Your task to perform on an android device: What's on the menu at Red Lobster? Image 0: 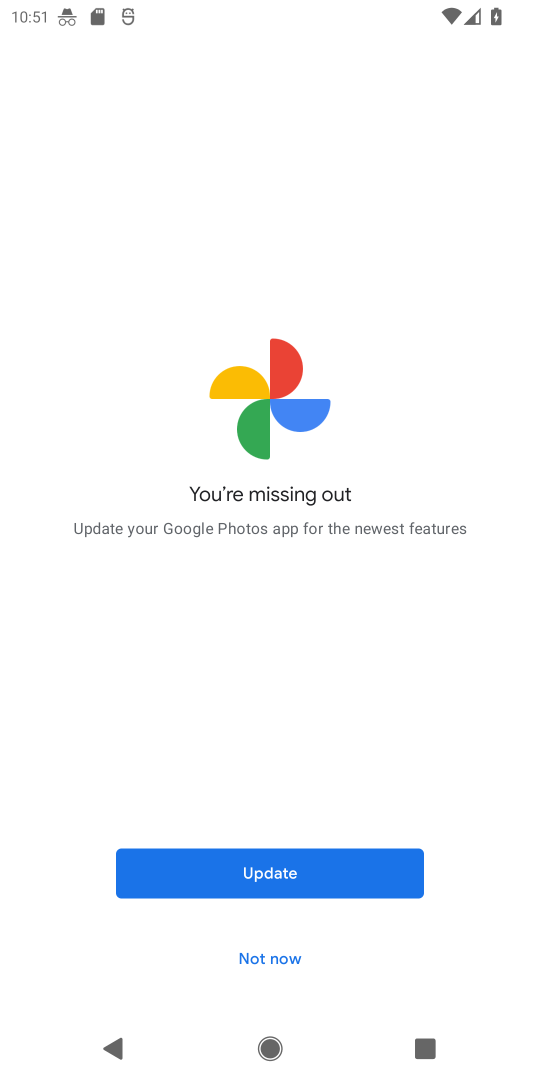
Step 0: press home button
Your task to perform on an android device: What's on the menu at Red Lobster? Image 1: 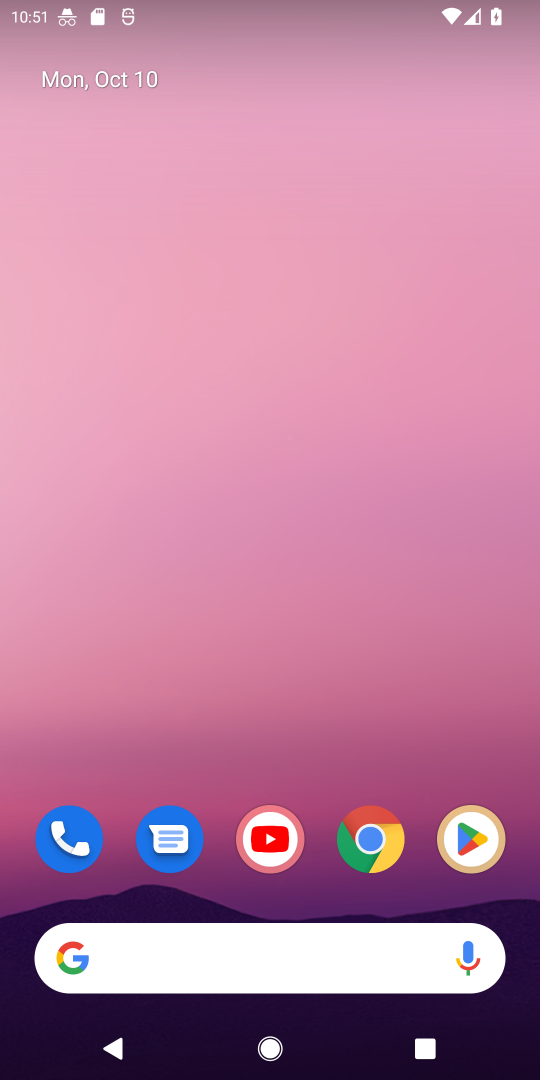
Step 1: drag from (328, 890) to (225, 81)
Your task to perform on an android device: What's on the menu at Red Lobster? Image 2: 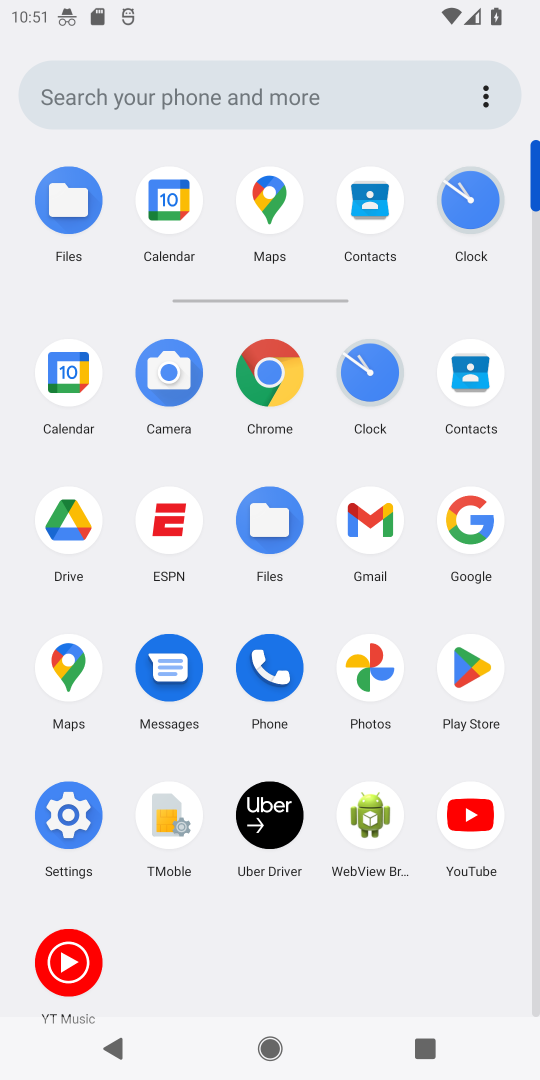
Step 2: click (277, 366)
Your task to perform on an android device: What's on the menu at Red Lobster? Image 3: 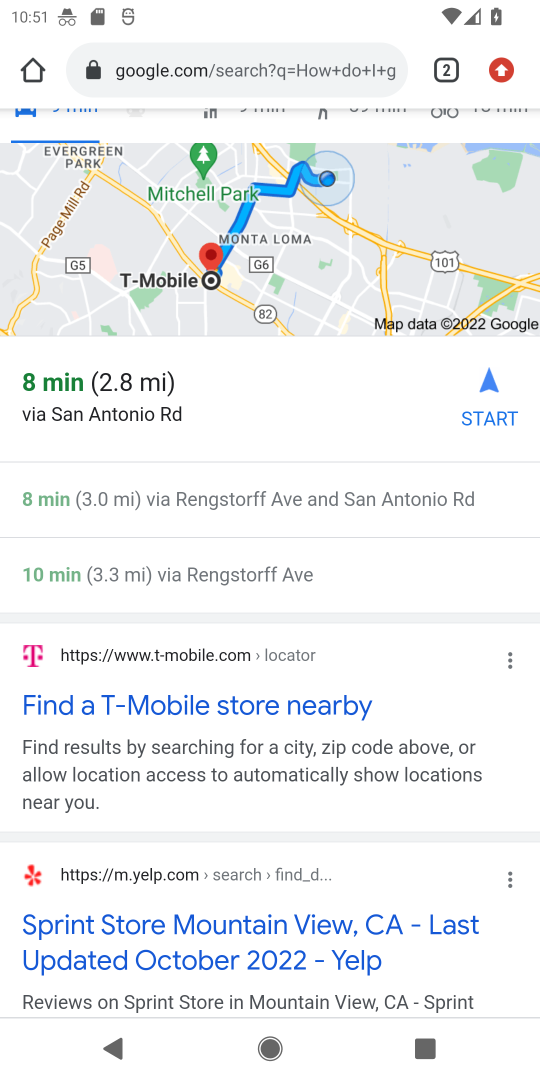
Step 3: click (233, 55)
Your task to perform on an android device: What's on the menu at Red Lobster? Image 4: 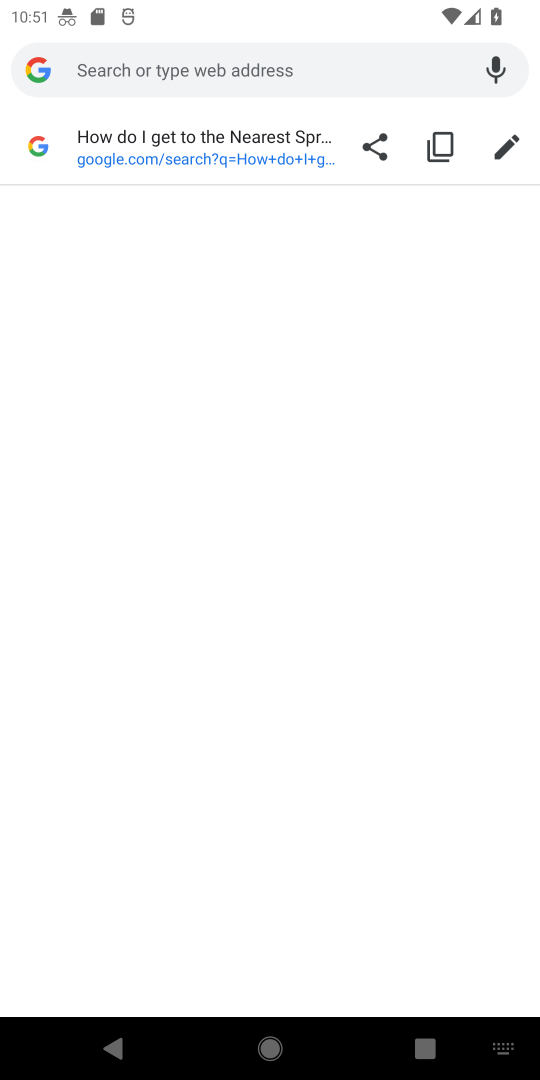
Step 4: type "Red Lobster menu"
Your task to perform on an android device: What's on the menu at Red Lobster? Image 5: 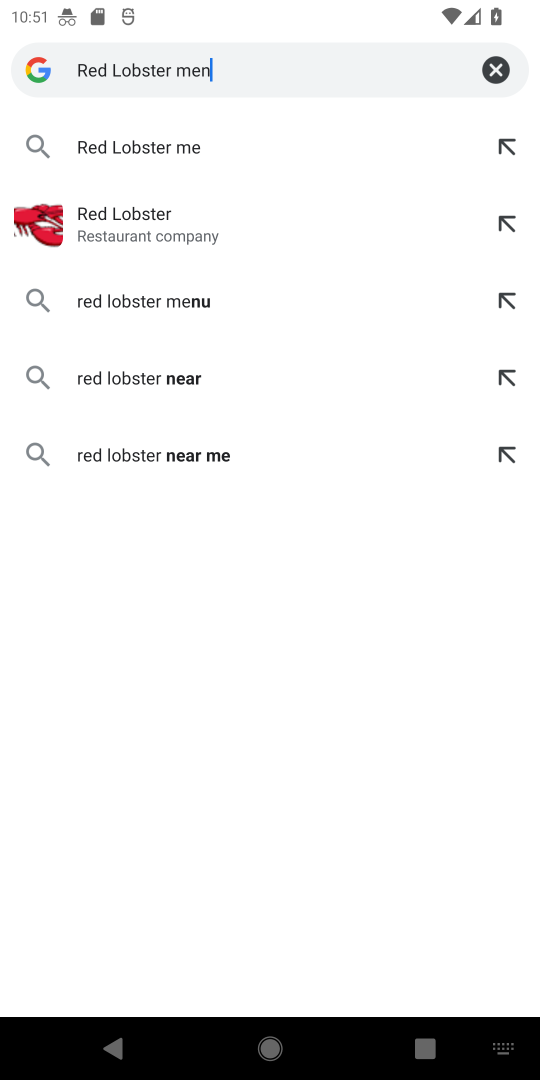
Step 5: press enter
Your task to perform on an android device: What's on the menu at Red Lobster? Image 6: 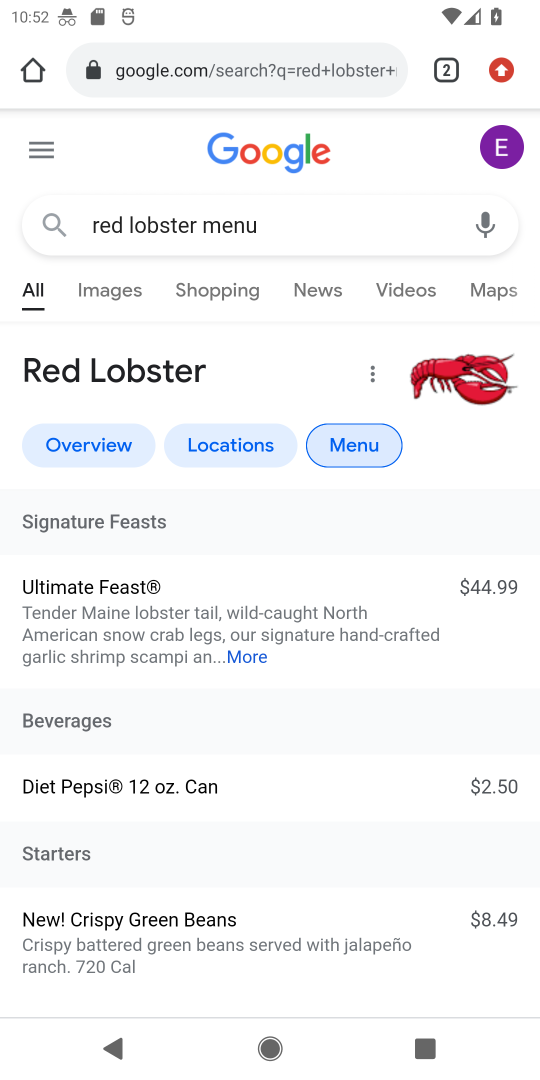
Step 6: drag from (244, 722) to (229, 412)
Your task to perform on an android device: What's on the menu at Red Lobster? Image 7: 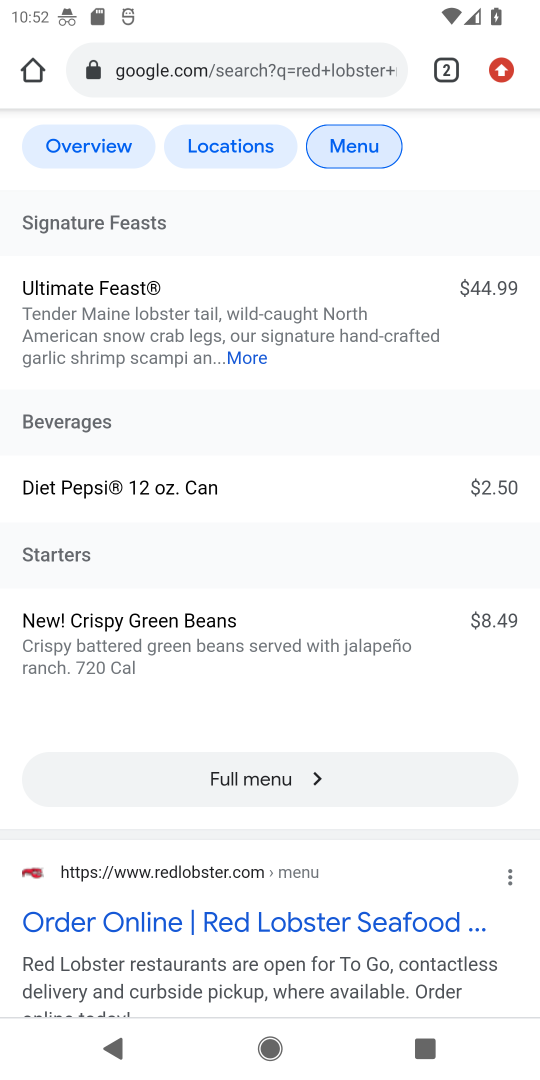
Step 7: click (280, 776)
Your task to perform on an android device: What's on the menu at Red Lobster? Image 8: 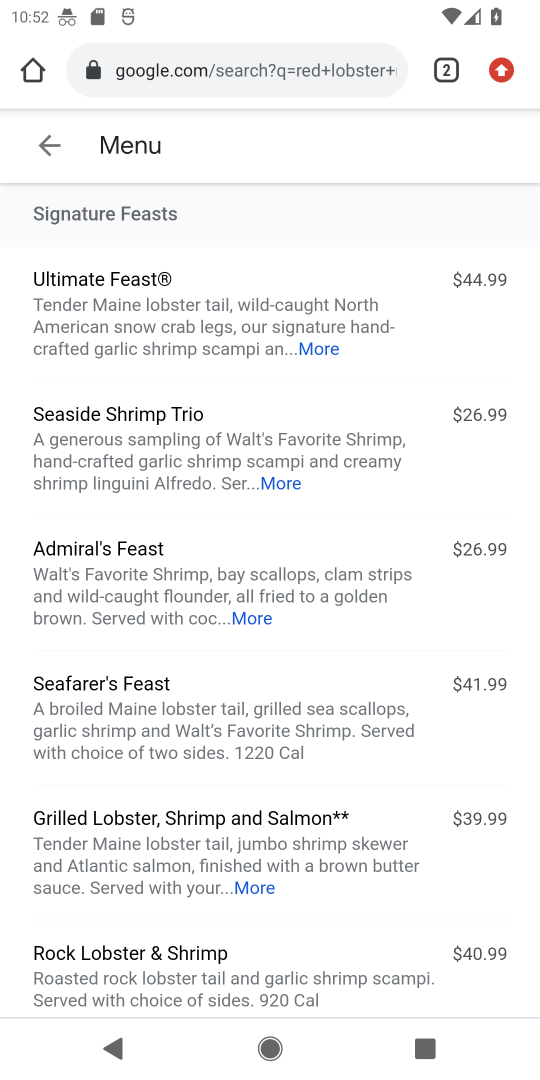
Step 8: task complete